Your task to perform on an android device: Go to sound settings Image 0: 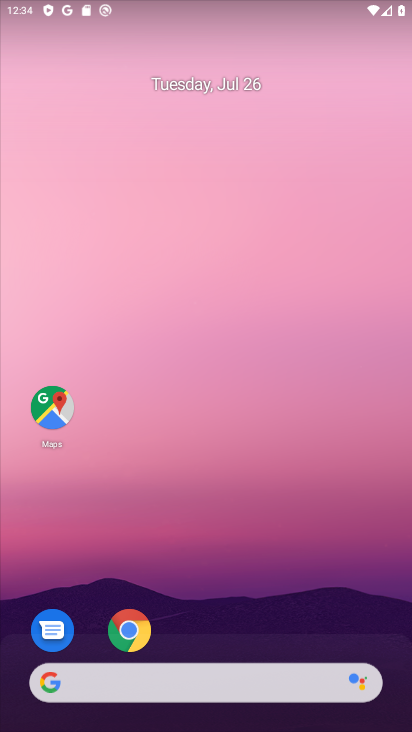
Step 0: drag from (163, 623) to (224, 61)
Your task to perform on an android device: Go to sound settings Image 1: 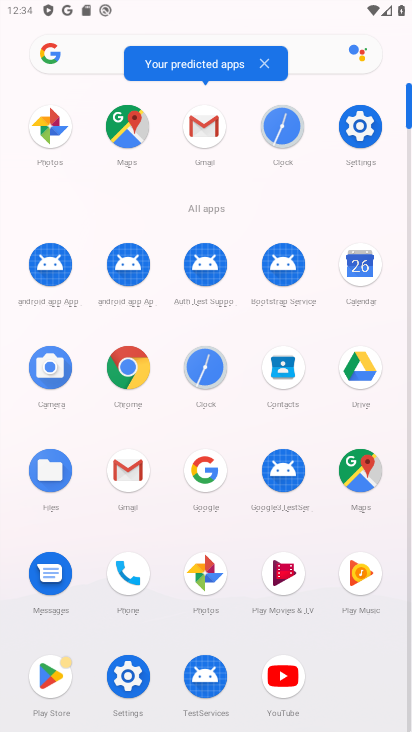
Step 1: click (358, 126)
Your task to perform on an android device: Go to sound settings Image 2: 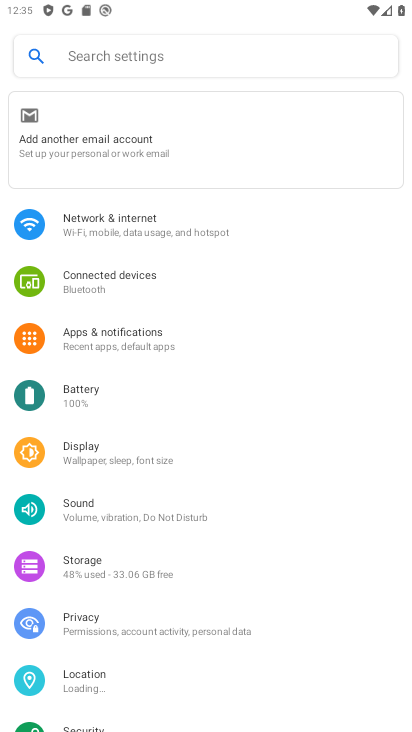
Step 2: click (82, 518)
Your task to perform on an android device: Go to sound settings Image 3: 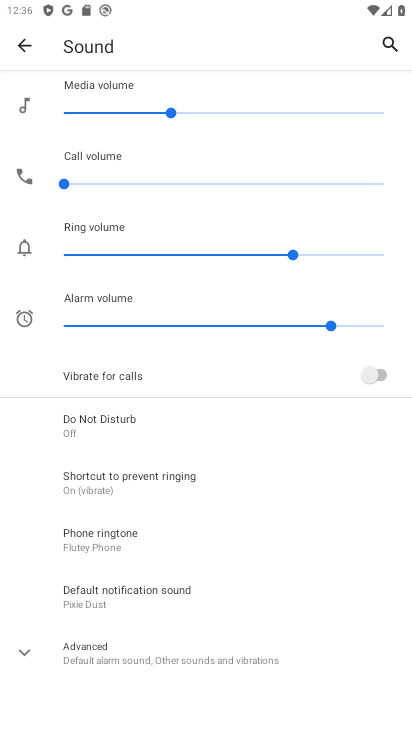
Step 3: task complete